Your task to perform on an android device: open a bookmark in the chrome app Image 0: 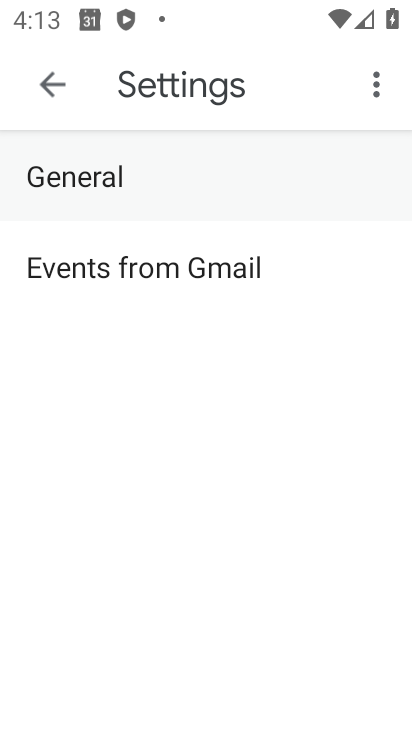
Step 0: task complete